Your task to perform on an android device: change the clock display to show seconds Image 0: 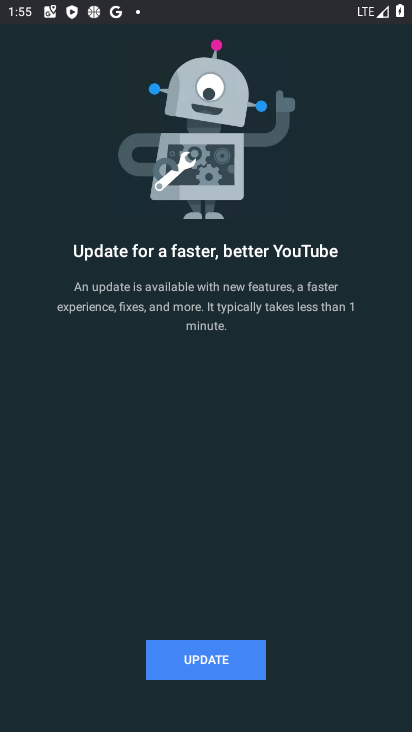
Step 0: press back button
Your task to perform on an android device: change the clock display to show seconds Image 1: 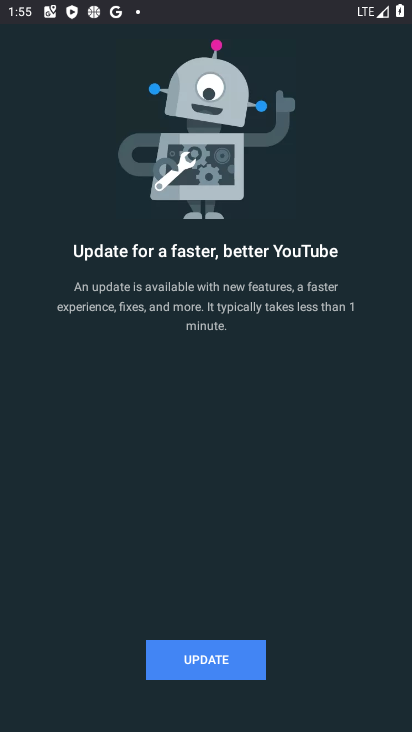
Step 1: press back button
Your task to perform on an android device: change the clock display to show seconds Image 2: 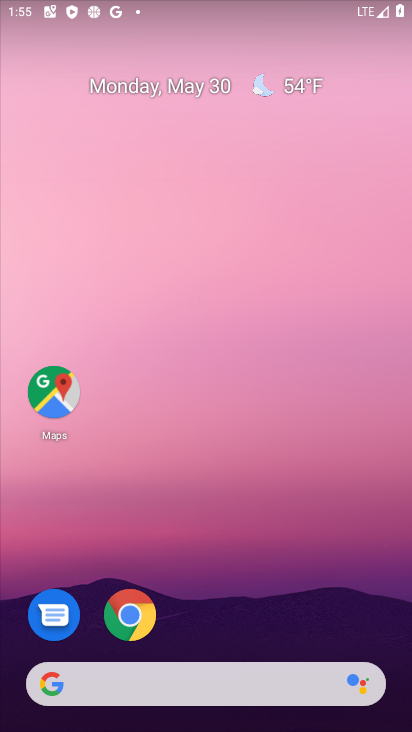
Step 2: drag from (334, 612) to (298, 180)
Your task to perform on an android device: change the clock display to show seconds Image 3: 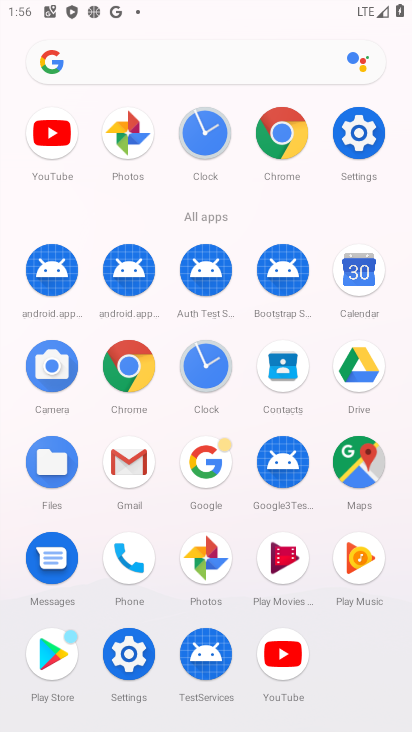
Step 3: click (217, 358)
Your task to perform on an android device: change the clock display to show seconds Image 4: 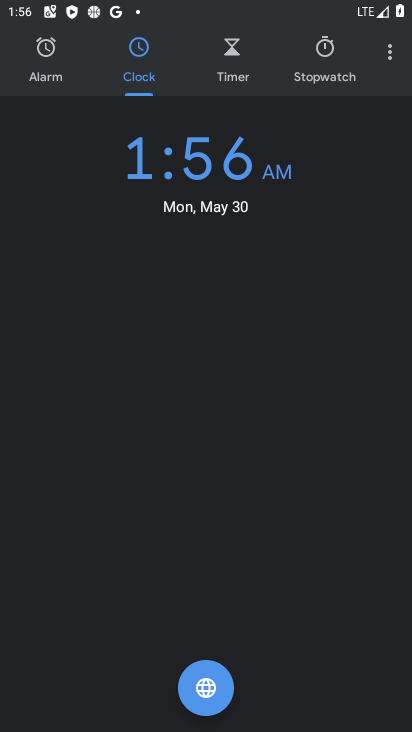
Step 4: click (387, 65)
Your task to perform on an android device: change the clock display to show seconds Image 5: 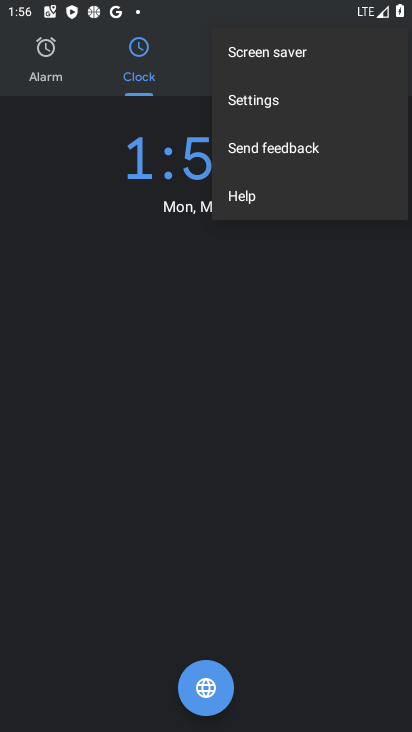
Step 5: click (259, 110)
Your task to perform on an android device: change the clock display to show seconds Image 6: 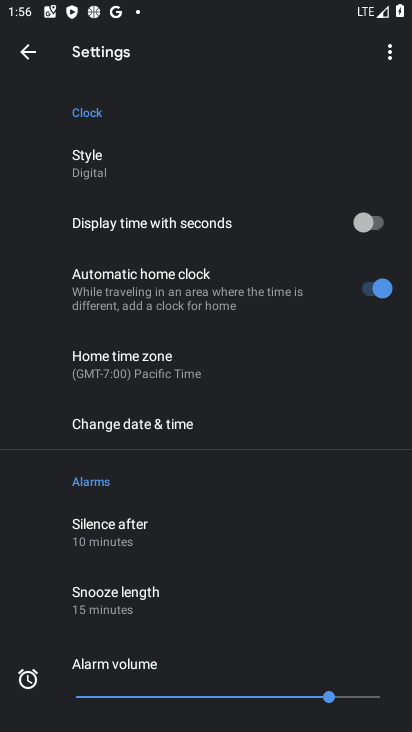
Step 6: click (358, 216)
Your task to perform on an android device: change the clock display to show seconds Image 7: 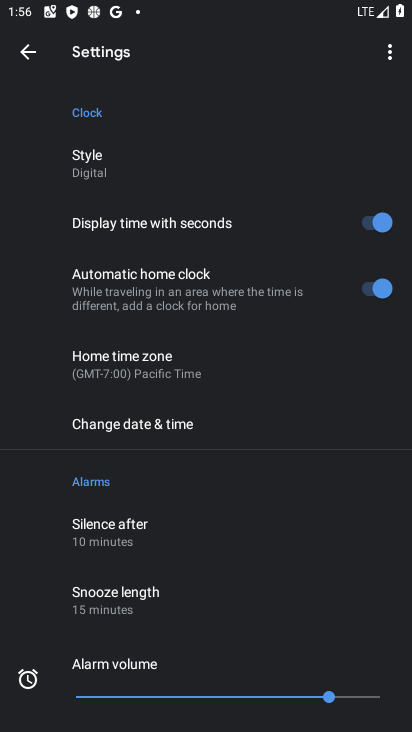
Step 7: task complete